Your task to perform on an android device: Show me the alarms in the clock app Image 0: 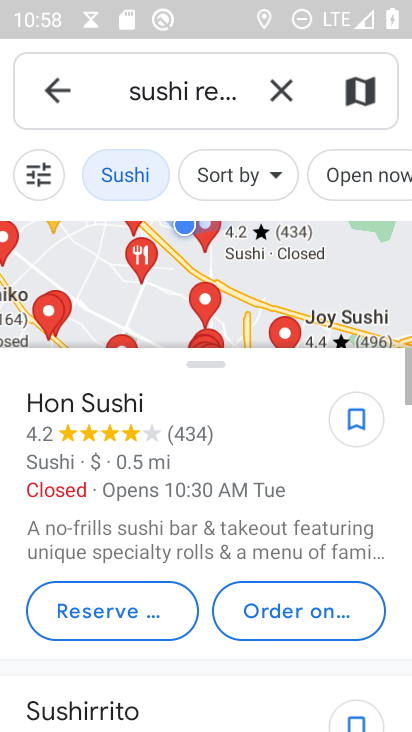
Step 0: press home button
Your task to perform on an android device: Show me the alarms in the clock app Image 1: 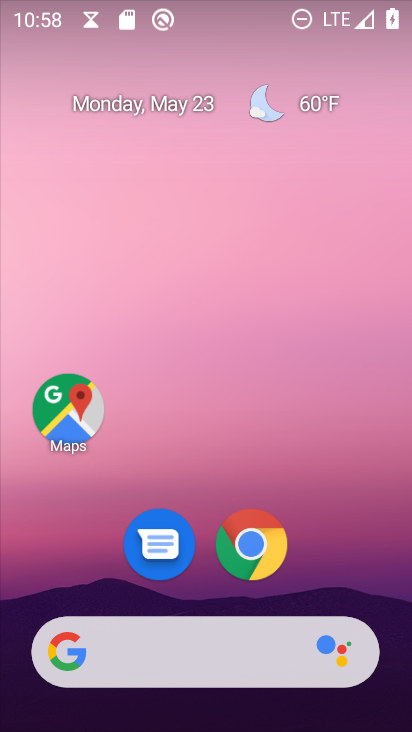
Step 1: drag from (288, 578) to (215, 251)
Your task to perform on an android device: Show me the alarms in the clock app Image 2: 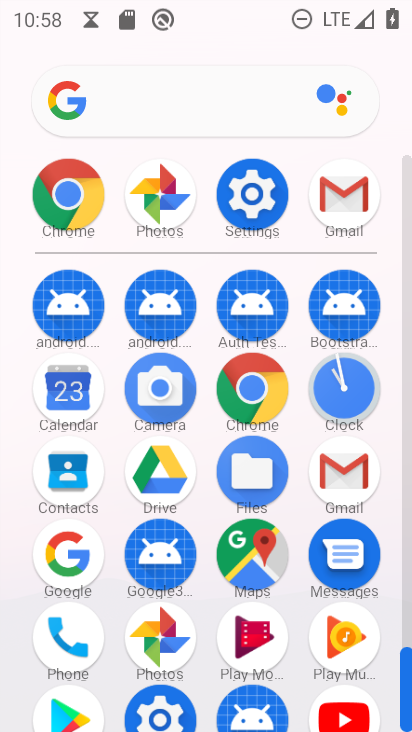
Step 2: click (353, 411)
Your task to perform on an android device: Show me the alarms in the clock app Image 3: 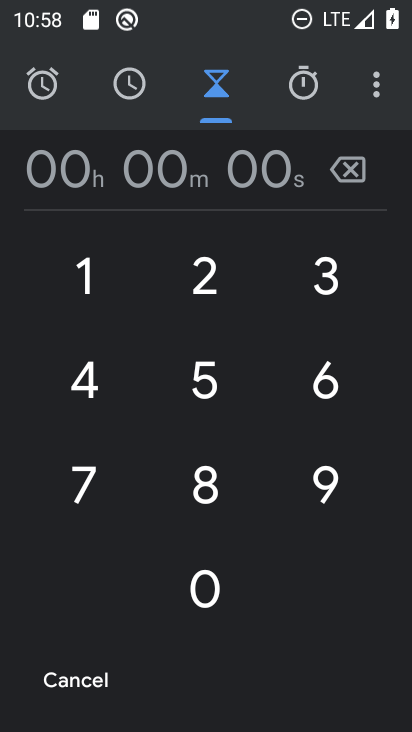
Step 3: click (49, 87)
Your task to perform on an android device: Show me the alarms in the clock app Image 4: 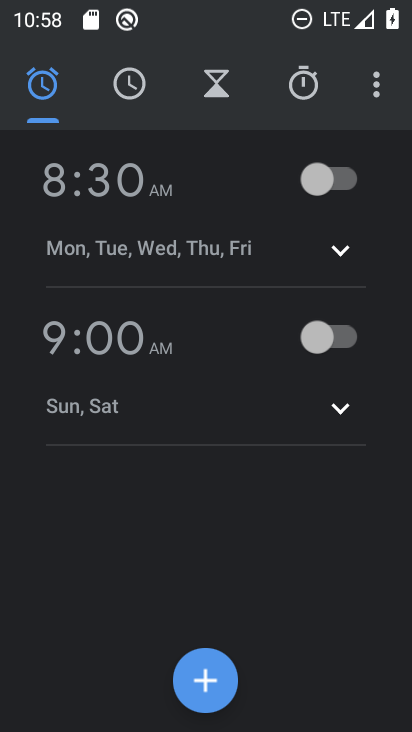
Step 4: task complete